Your task to perform on an android device: Open Chrome and go to the settings page Image 0: 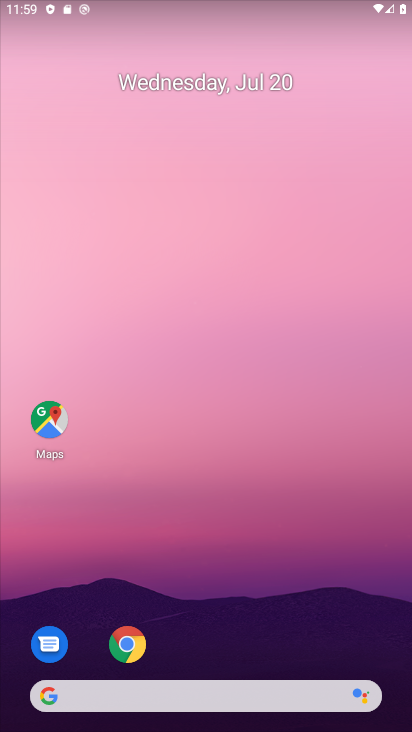
Step 0: drag from (242, 683) to (189, 213)
Your task to perform on an android device: Open Chrome and go to the settings page Image 1: 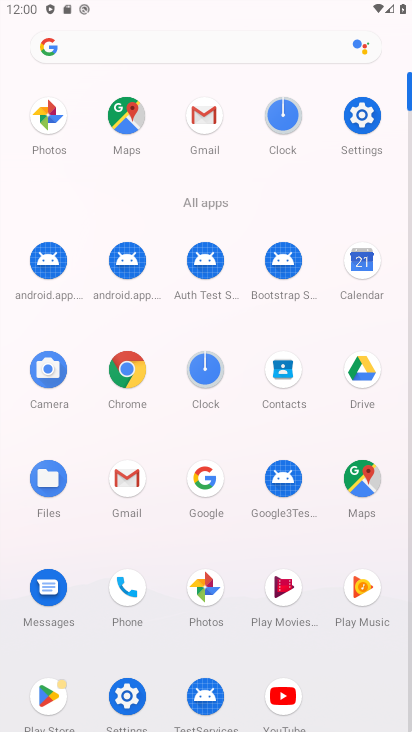
Step 1: click (120, 388)
Your task to perform on an android device: Open Chrome and go to the settings page Image 2: 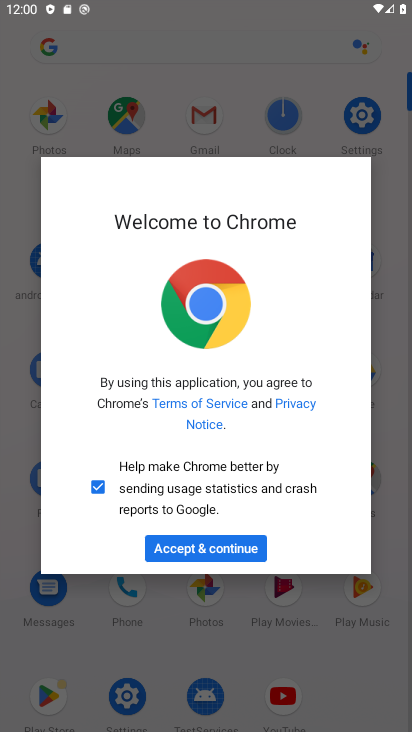
Step 2: click (212, 558)
Your task to perform on an android device: Open Chrome and go to the settings page Image 3: 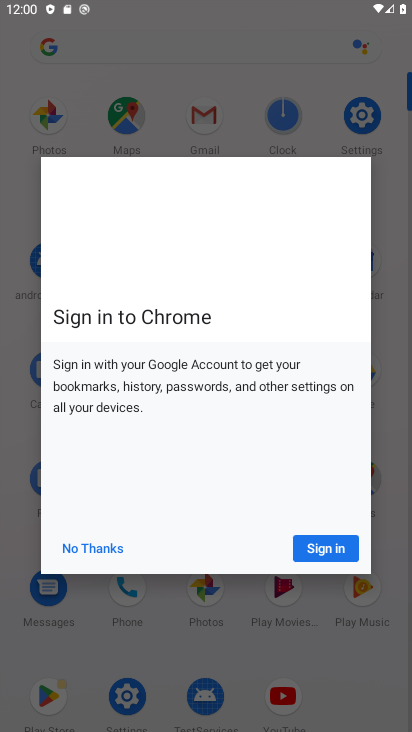
Step 3: click (212, 558)
Your task to perform on an android device: Open Chrome and go to the settings page Image 4: 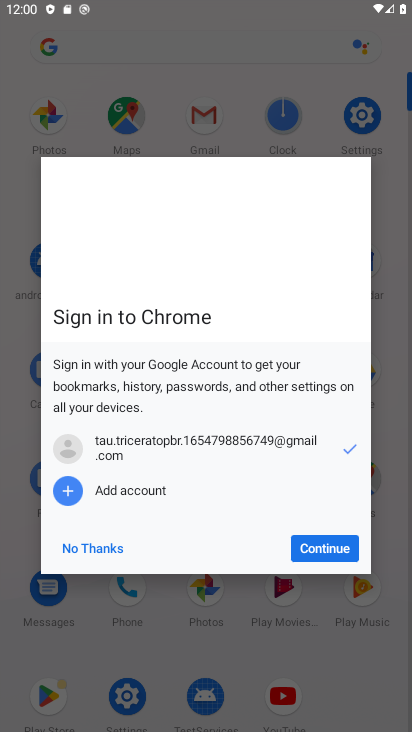
Step 4: click (321, 539)
Your task to perform on an android device: Open Chrome and go to the settings page Image 5: 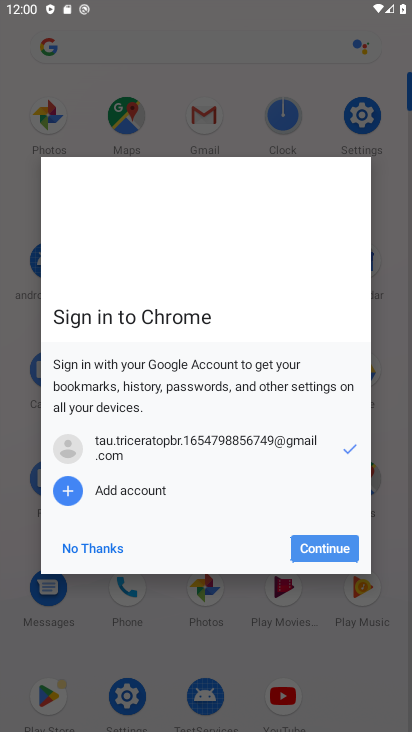
Step 5: click (321, 539)
Your task to perform on an android device: Open Chrome and go to the settings page Image 6: 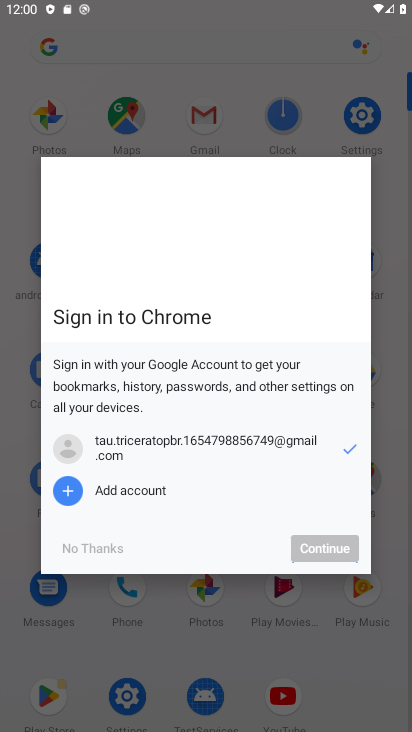
Step 6: click (321, 543)
Your task to perform on an android device: Open Chrome and go to the settings page Image 7: 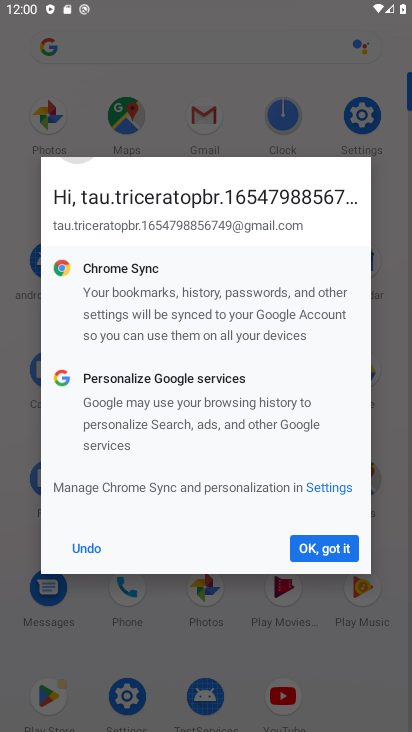
Step 7: click (336, 552)
Your task to perform on an android device: Open Chrome and go to the settings page Image 8: 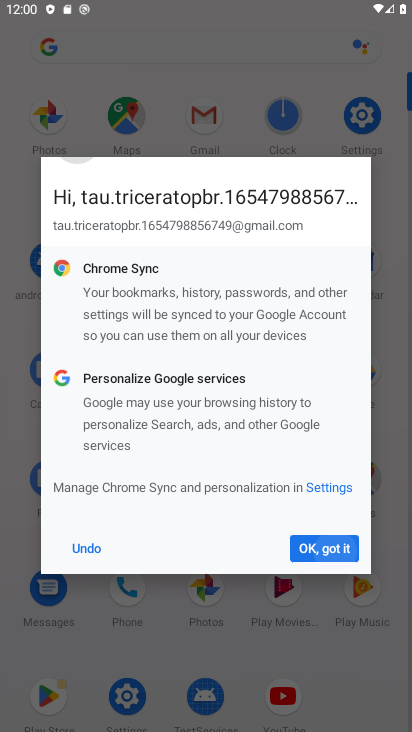
Step 8: click (336, 552)
Your task to perform on an android device: Open Chrome and go to the settings page Image 9: 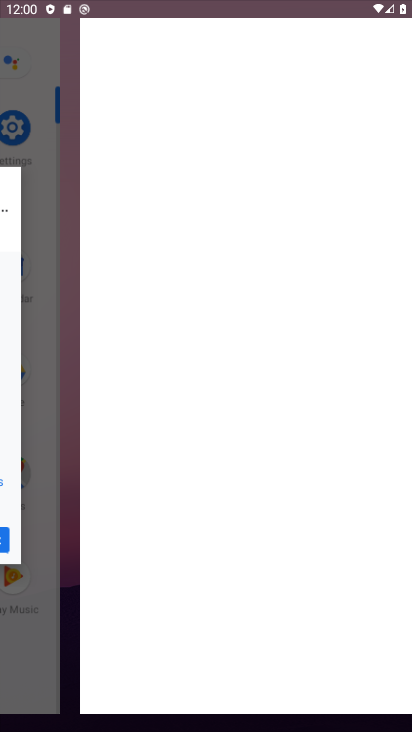
Step 9: click (336, 552)
Your task to perform on an android device: Open Chrome and go to the settings page Image 10: 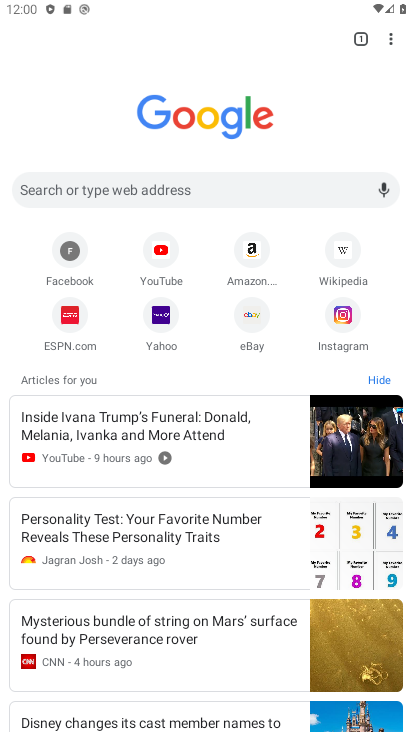
Step 10: task complete